Your task to perform on an android device: change keyboard looks Image 0: 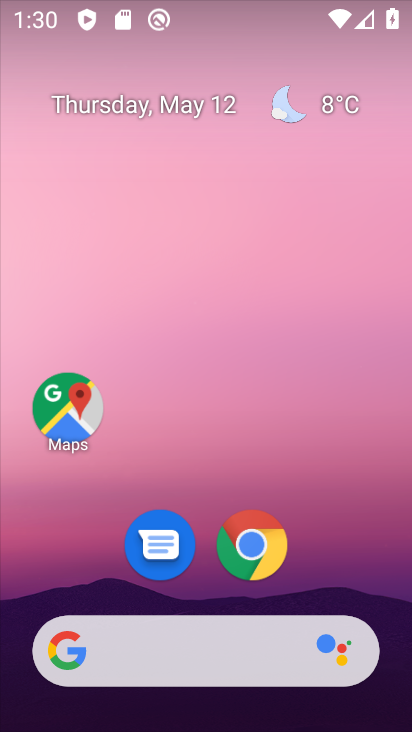
Step 0: drag from (238, 434) to (292, 127)
Your task to perform on an android device: change keyboard looks Image 1: 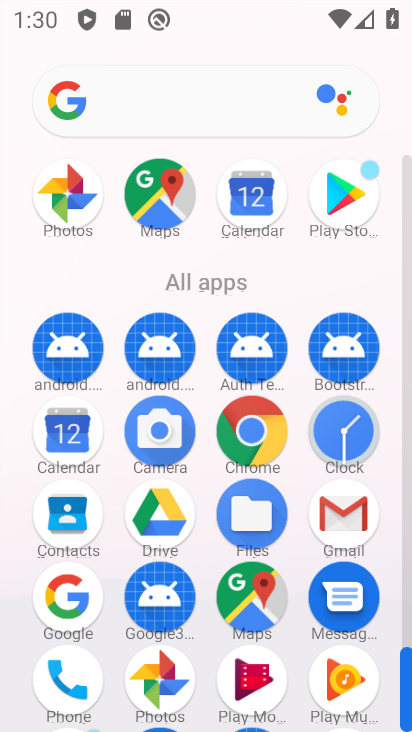
Step 1: drag from (225, 598) to (233, 231)
Your task to perform on an android device: change keyboard looks Image 2: 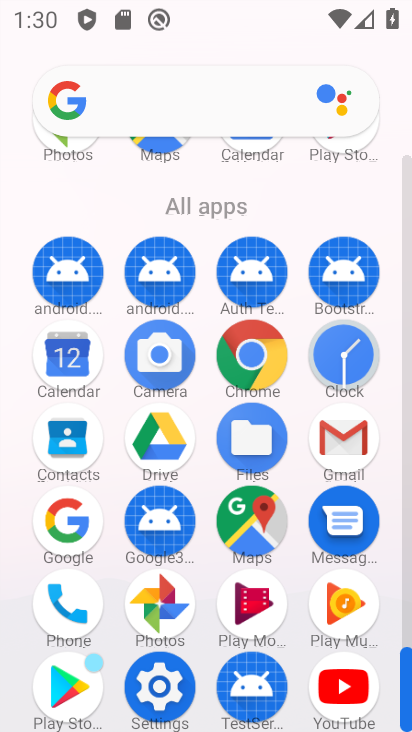
Step 2: click (152, 655)
Your task to perform on an android device: change keyboard looks Image 3: 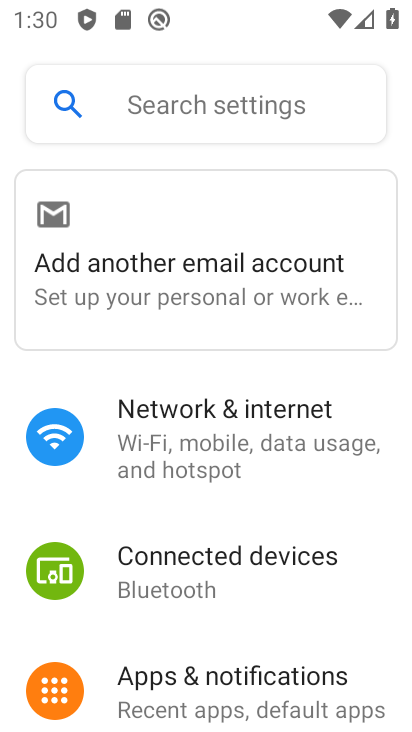
Step 3: drag from (198, 629) to (274, 98)
Your task to perform on an android device: change keyboard looks Image 4: 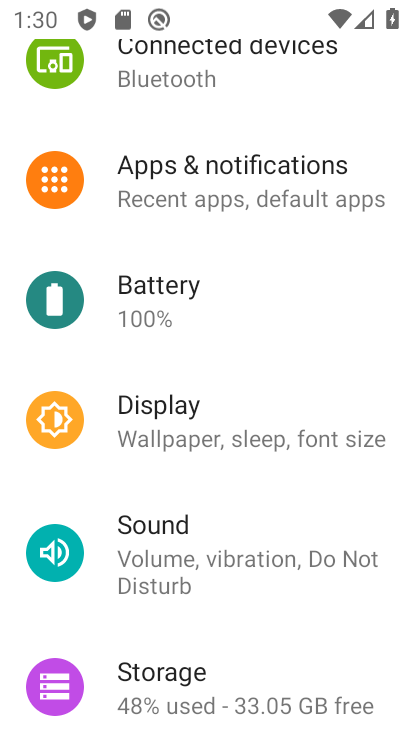
Step 4: drag from (287, 290) to (305, 222)
Your task to perform on an android device: change keyboard looks Image 5: 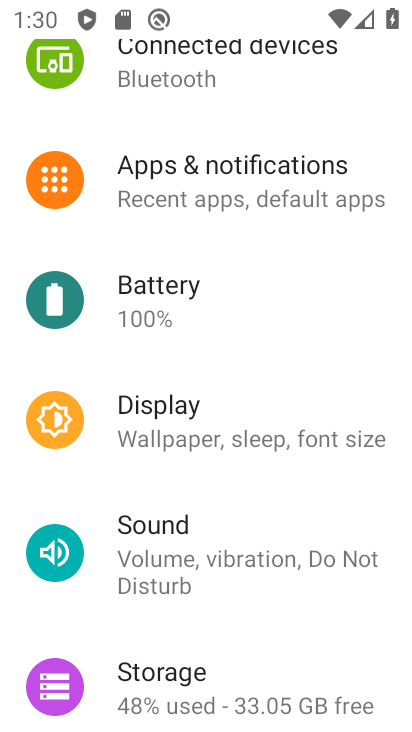
Step 5: drag from (208, 642) to (272, 283)
Your task to perform on an android device: change keyboard looks Image 6: 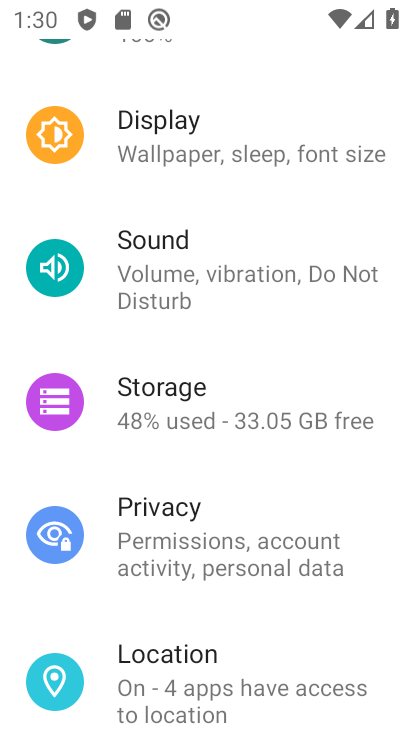
Step 6: drag from (186, 604) to (272, 232)
Your task to perform on an android device: change keyboard looks Image 7: 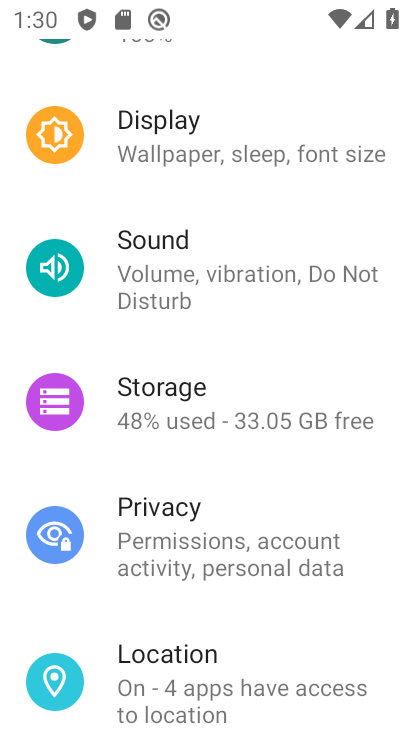
Step 7: drag from (194, 602) to (301, 202)
Your task to perform on an android device: change keyboard looks Image 8: 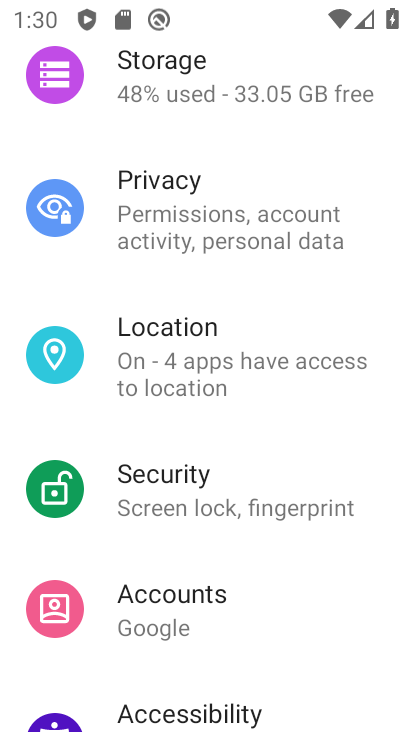
Step 8: drag from (205, 711) to (279, 91)
Your task to perform on an android device: change keyboard looks Image 9: 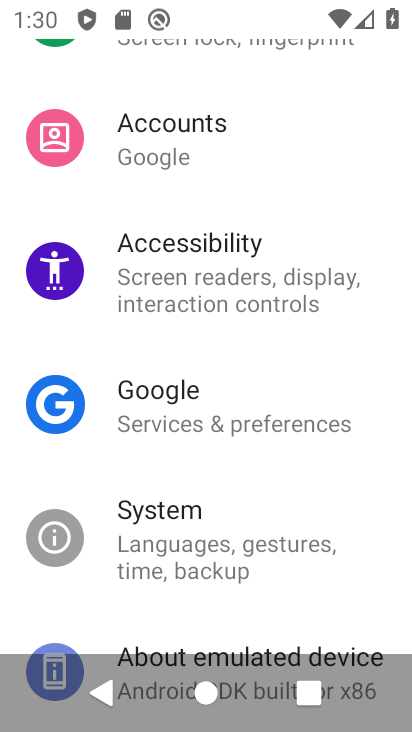
Step 9: click (192, 538)
Your task to perform on an android device: change keyboard looks Image 10: 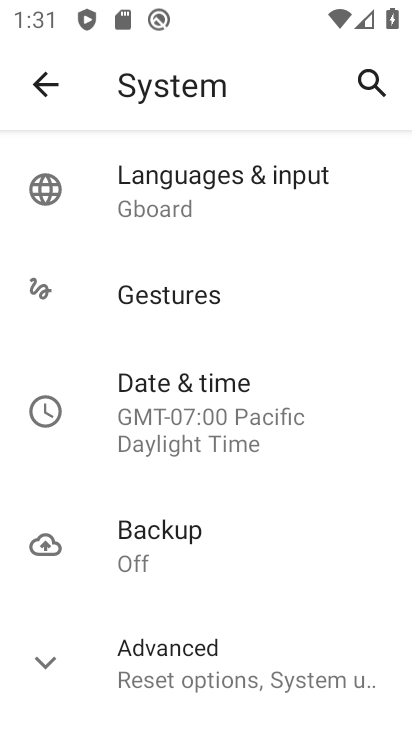
Step 10: click (173, 200)
Your task to perform on an android device: change keyboard looks Image 11: 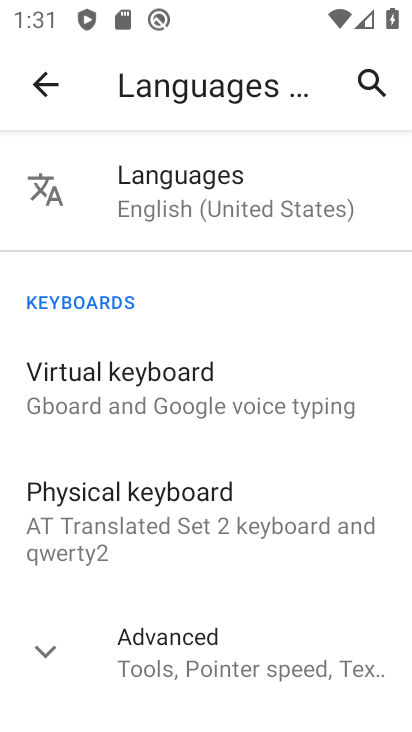
Step 11: click (178, 391)
Your task to perform on an android device: change keyboard looks Image 12: 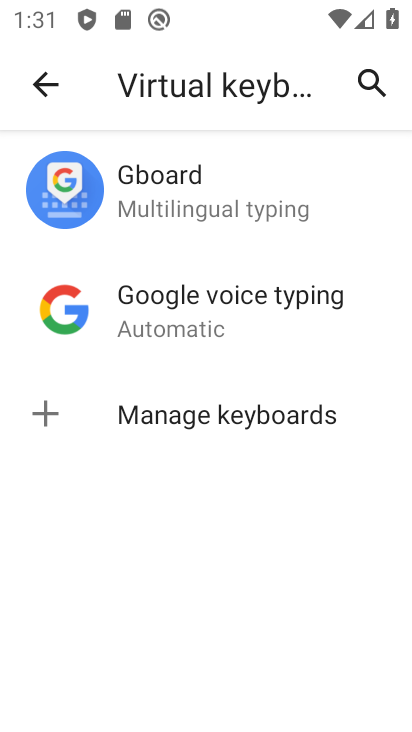
Step 12: click (210, 183)
Your task to perform on an android device: change keyboard looks Image 13: 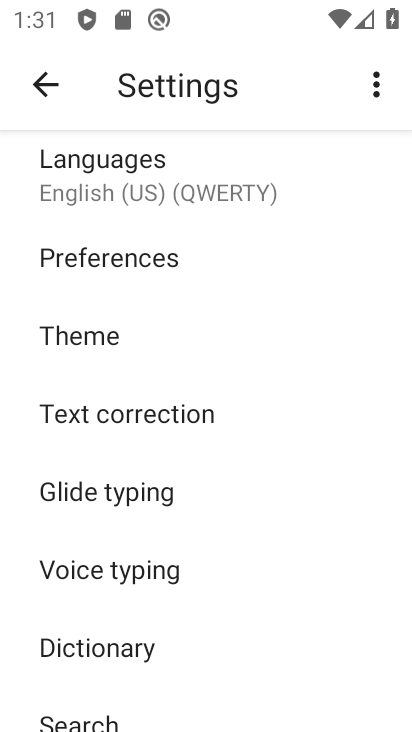
Step 13: click (90, 330)
Your task to perform on an android device: change keyboard looks Image 14: 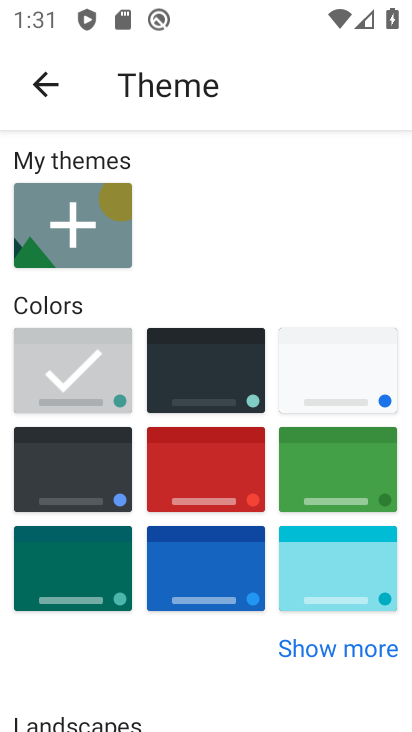
Step 14: click (249, 431)
Your task to perform on an android device: change keyboard looks Image 15: 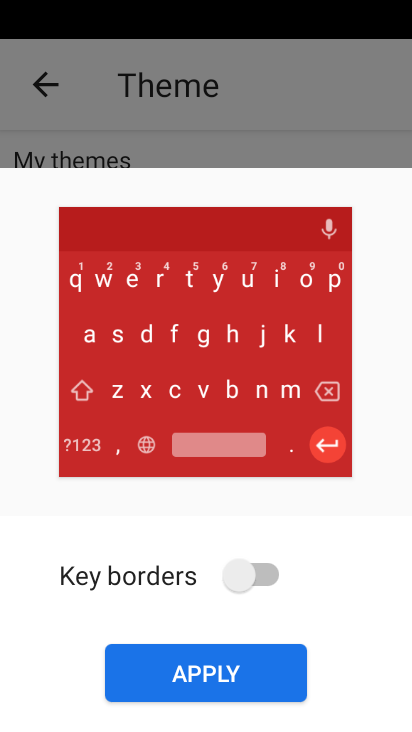
Step 15: click (165, 677)
Your task to perform on an android device: change keyboard looks Image 16: 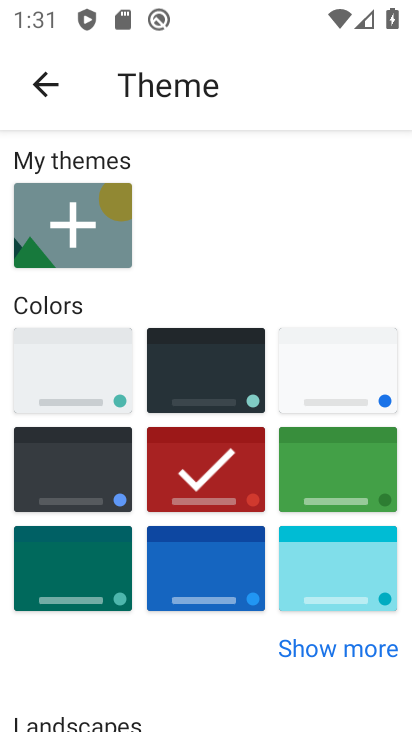
Step 16: task complete